Your task to perform on an android device: turn on javascript in the chrome app Image 0: 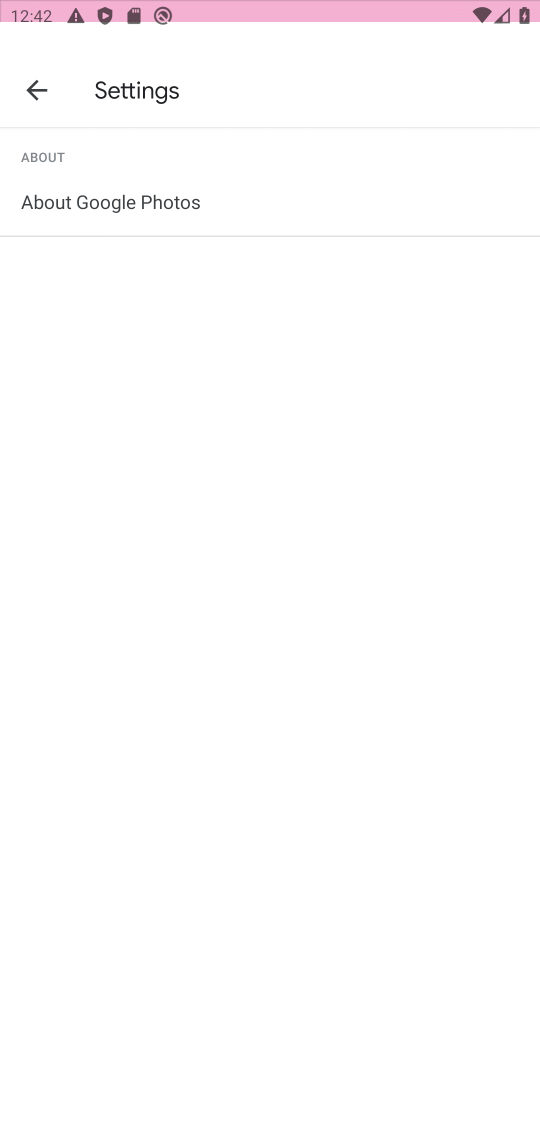
Step 0: click (337, 116)
Your task to perform on an android device: turn on javascript in the chrome app Image 1: 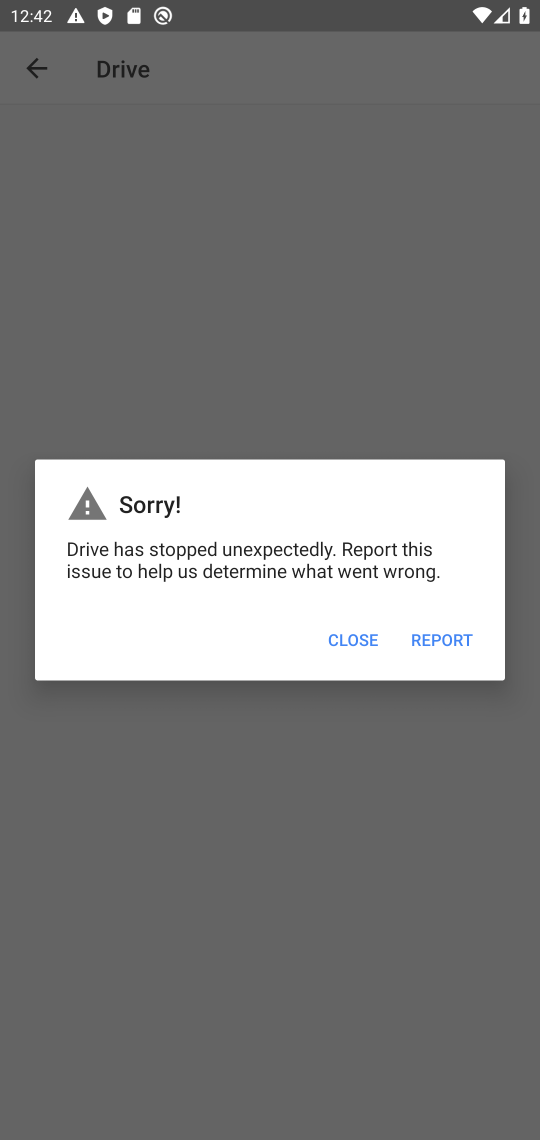
Step 1: press home button
Your task to perform on an android device: turn on javascript in the chrome app Image 2: 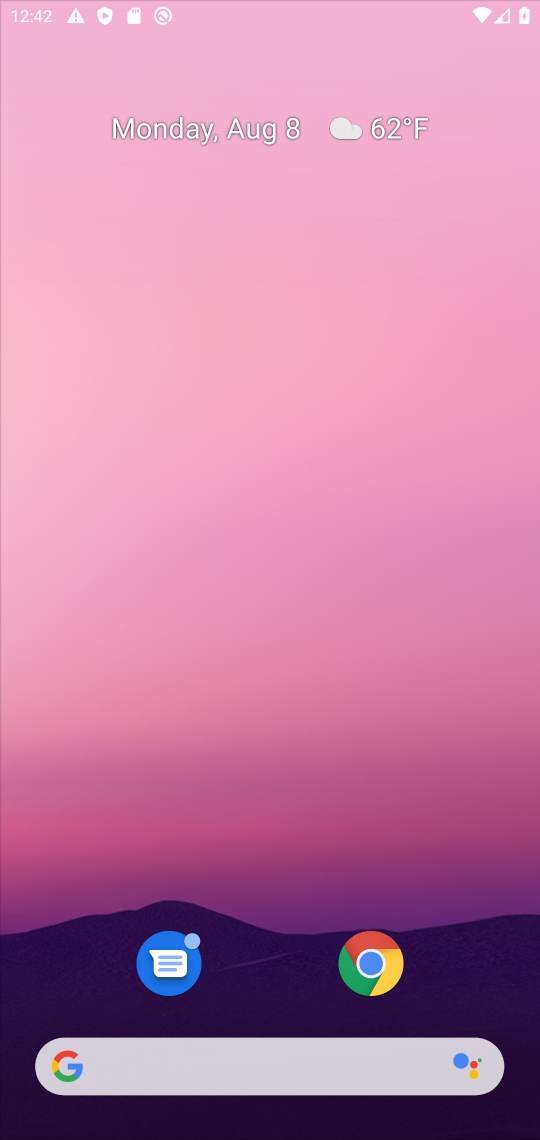
Step 2: drag from (472, 863) to (361, 2)
Your task to perform on an android device: turn on javascript in the chrome app Image 3: 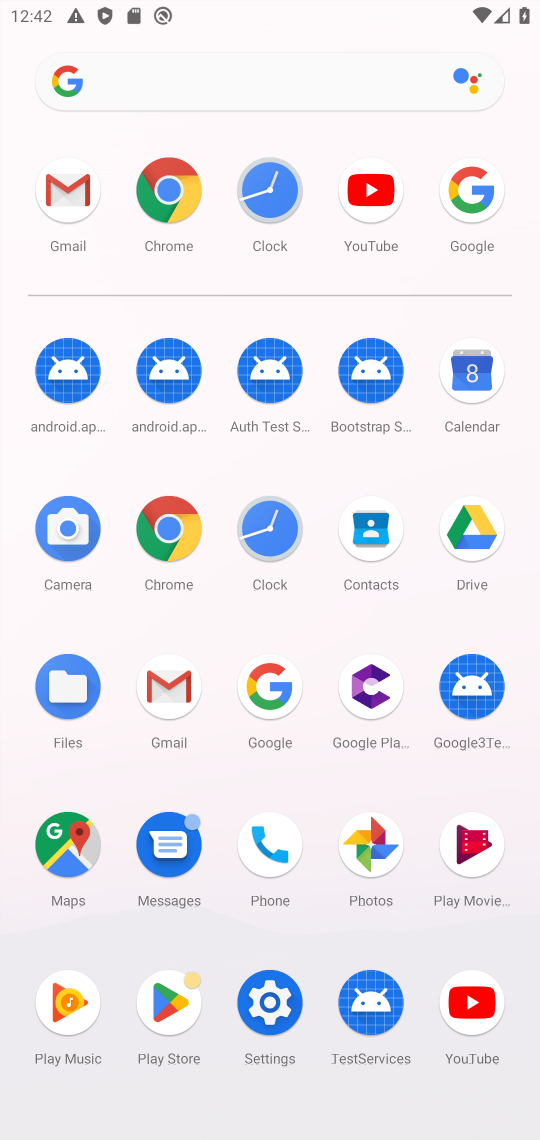
Step 3: click (164, 542)
Your task to perform on an android device: turn on javascript in the chrome app Image 4: 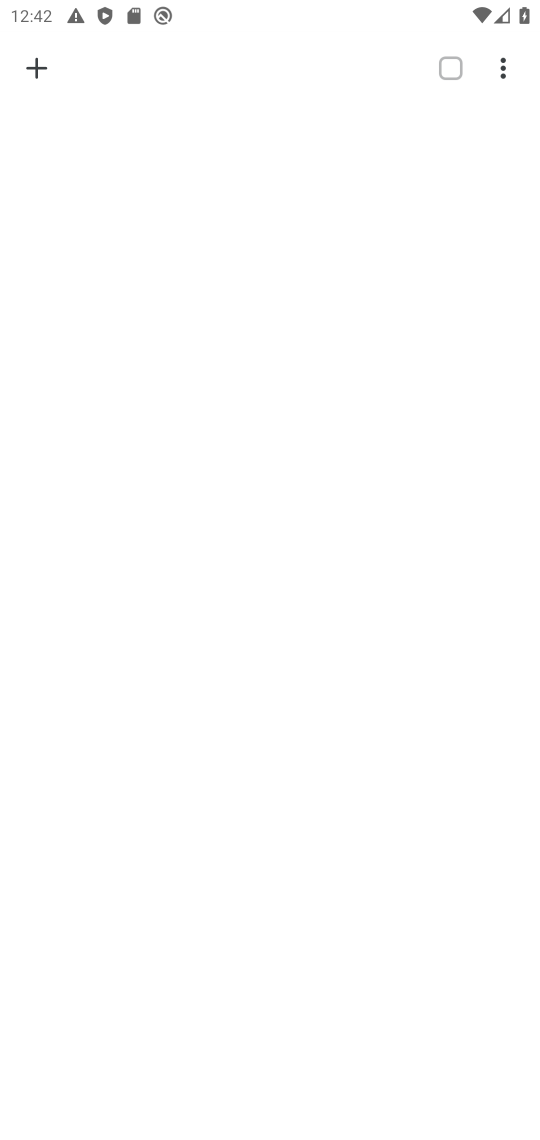
Step 4: click (499, 64)
Your task to perform on an android device: turn on javascript in the chrome app Image 5: 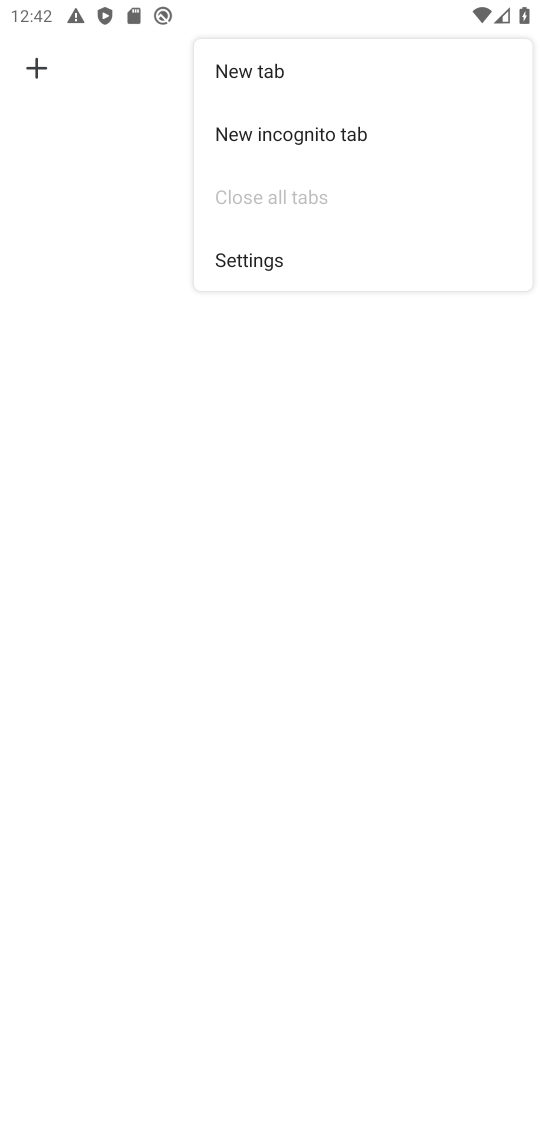
Step 5: click (263, 274)
Your task to perform on an android device: turn on javascript in the chrome app Image 6: 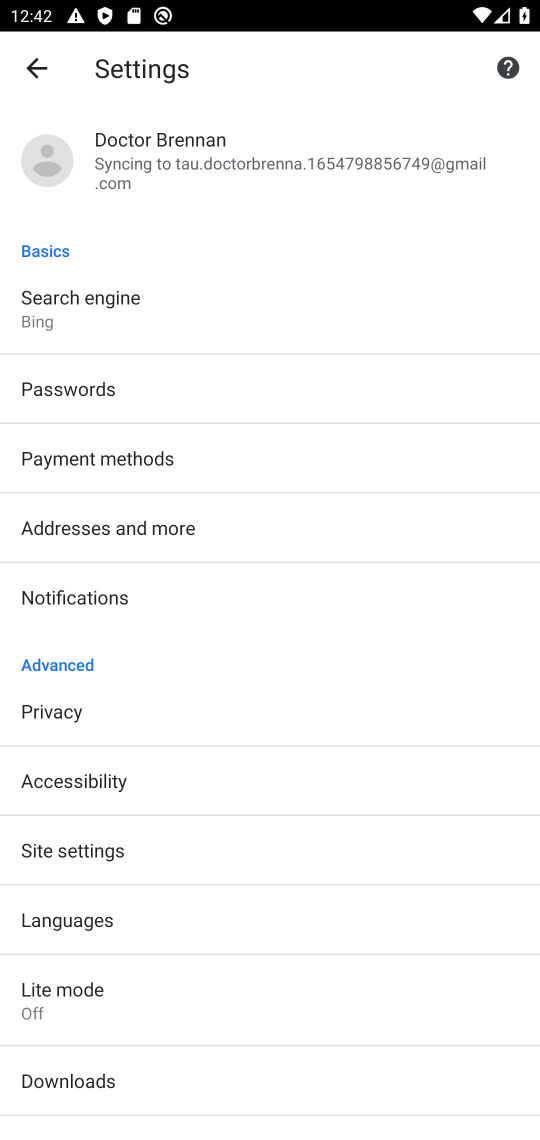
Step 6: click (154, 860)
Your task to perform on an android device: turn on javascript in the chrome app Image 7: 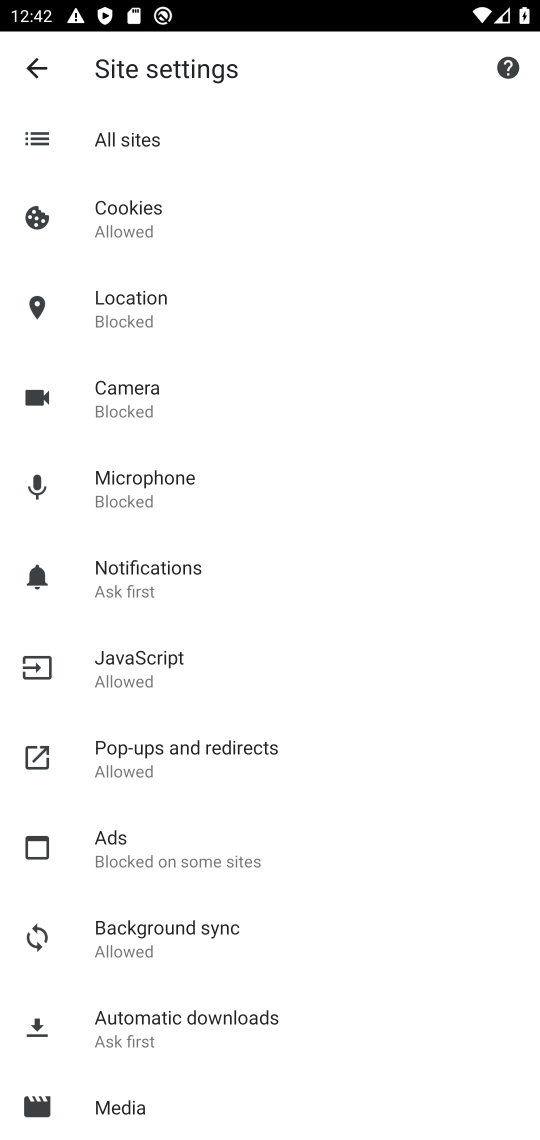
Step 7: click (167, 654)
Your task to perform on an android device: turn on javascript in the chrome app Image 8: 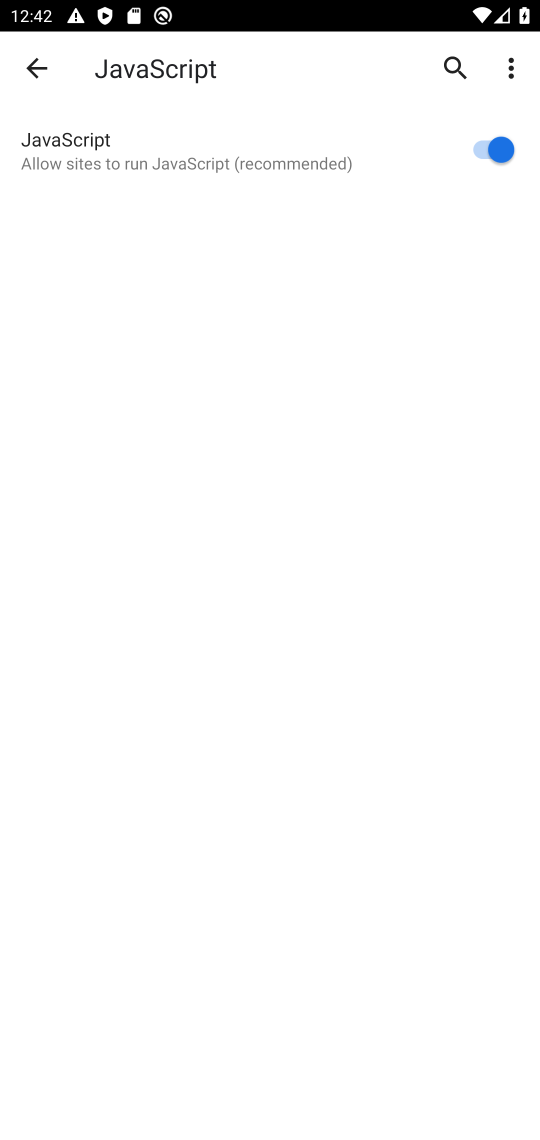
Step 8: task complete